Your task to perform on an android device: open app "Google Keep" Image 0: 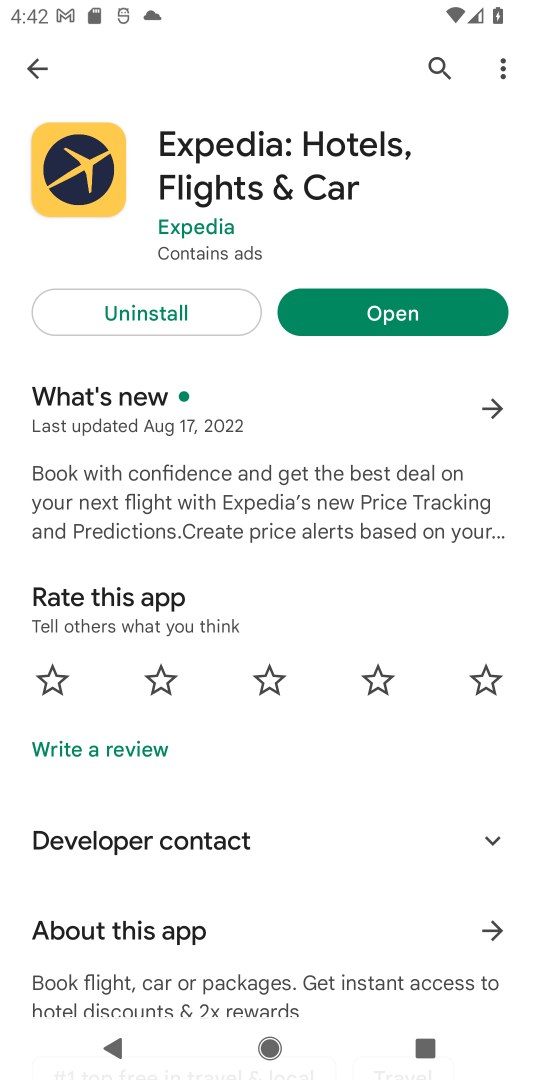
Step 0: click (430, 70)
Your task to perform on an android device: open app "Google Keep" Image 1: 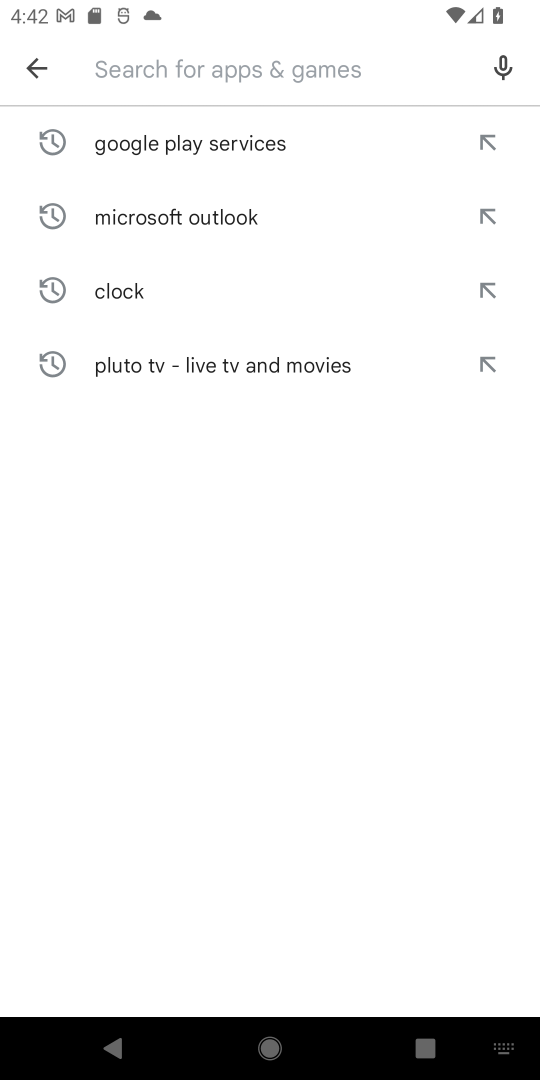
Step 1: type "Google Keep"
Your task to perform on an android device: open app "Google Keep" Image 2: 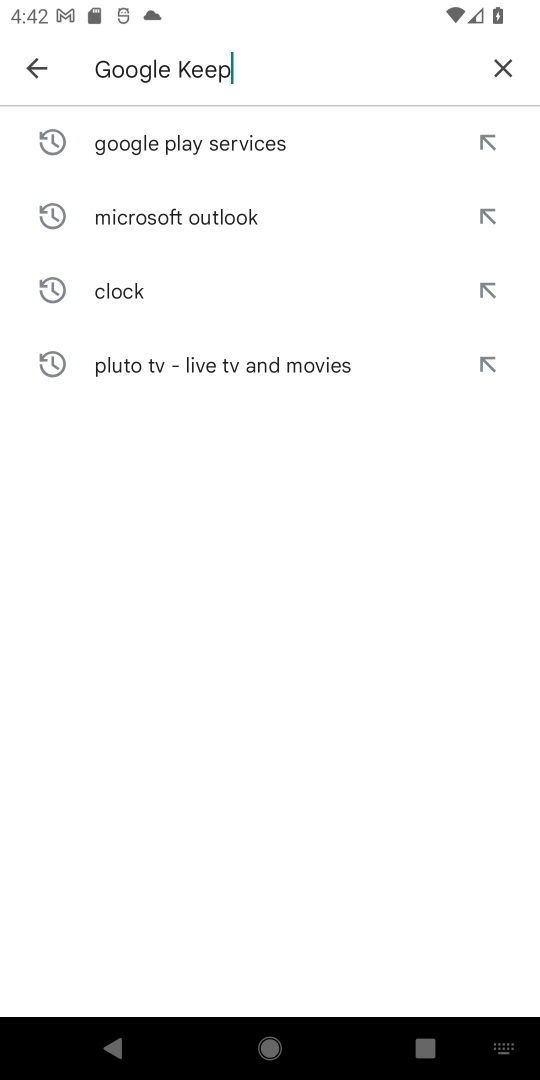
Step 2: type ""
Your task to perform on an android device: open app "Google Keep" Image 3: 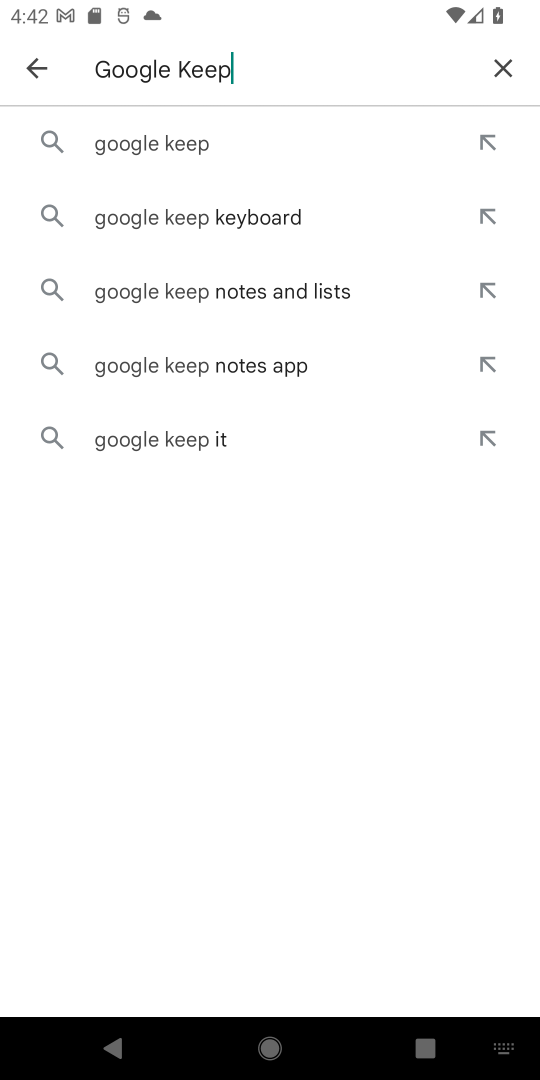
Step 3: click (228, 141)
Your task to perform on an android device: open app "Google Keep" Image 4: 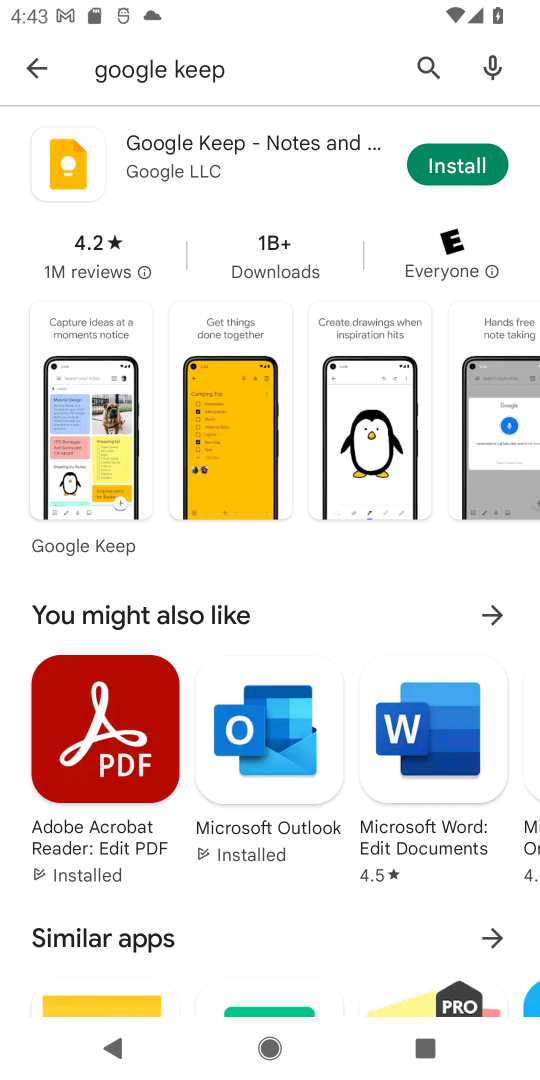
Step 4: task complete